Your task to perform on an android device: Search for "logitech g pro" on ebay.com, select the first entry, add it to the cart, then select checkout. Image 0: 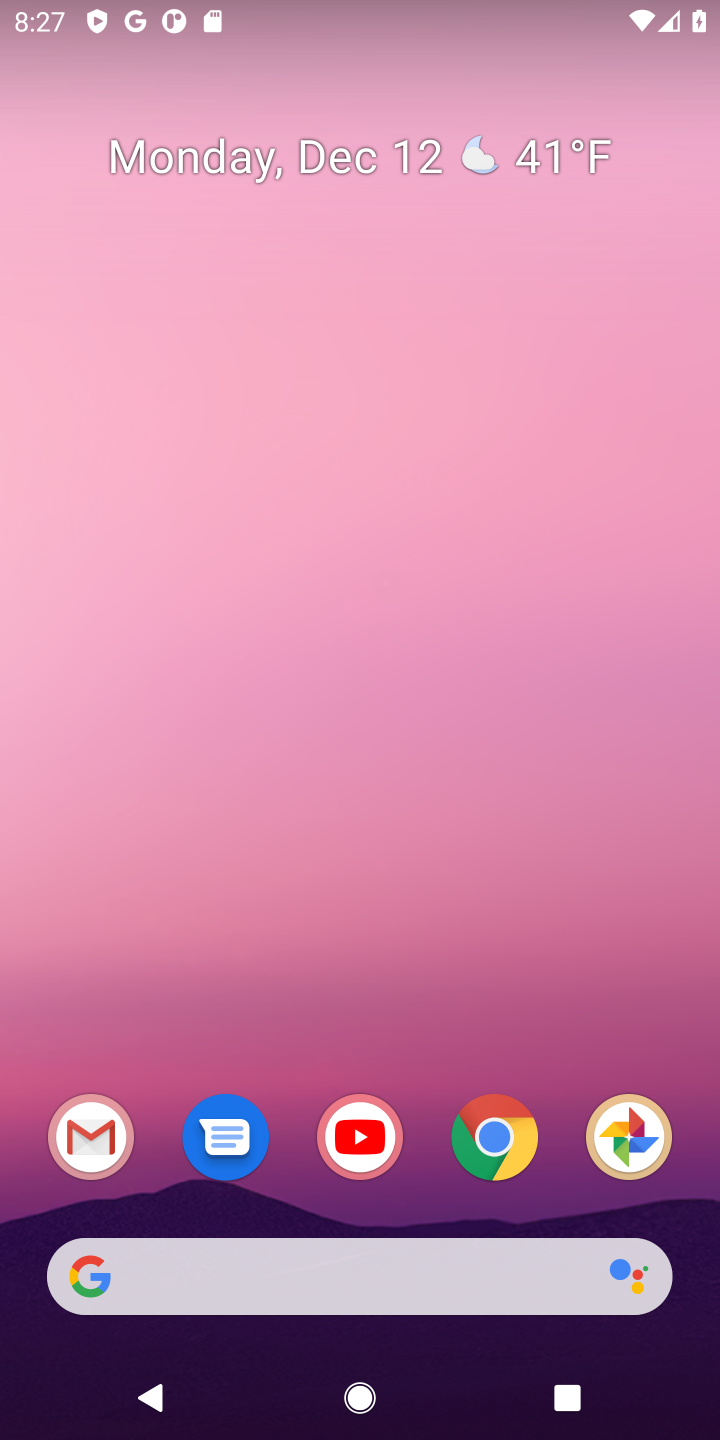
Step 0: click (493, 1135)
Your task to perform on an android device: Search for "logitech g pro" on ebay.com, select the first entry, add it to the cart, then select checkout. Image 1: 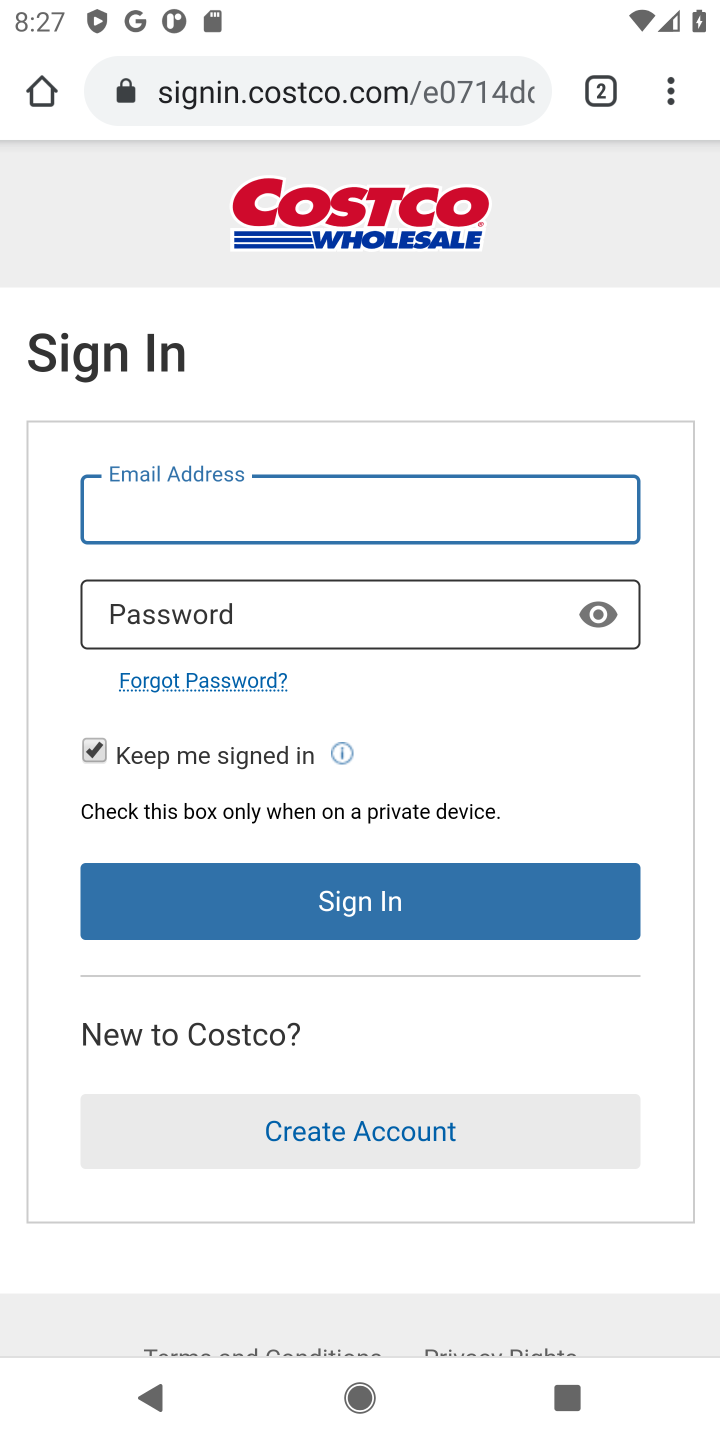
Step 1: click (387, 87)
Your task to perform on an android device: Search for "logitech g pro" on ebay.com, select the first entry, add it to the cart, then select checkout. Image 2: 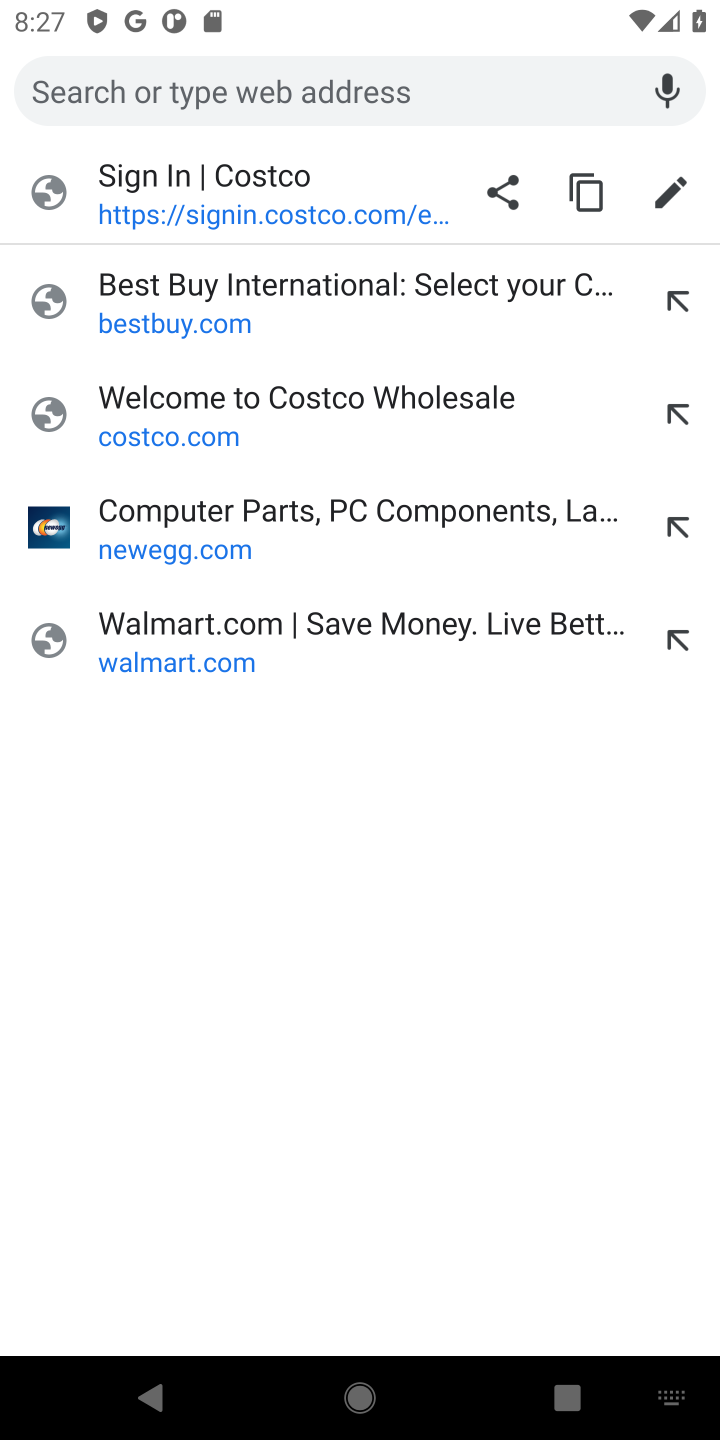
Step 2: type "ebay"
Your task to perform on an android device: Search for "logitech g pro" on ebay.com, select the first entry, add it to the cart, then select checkout. Image 3: 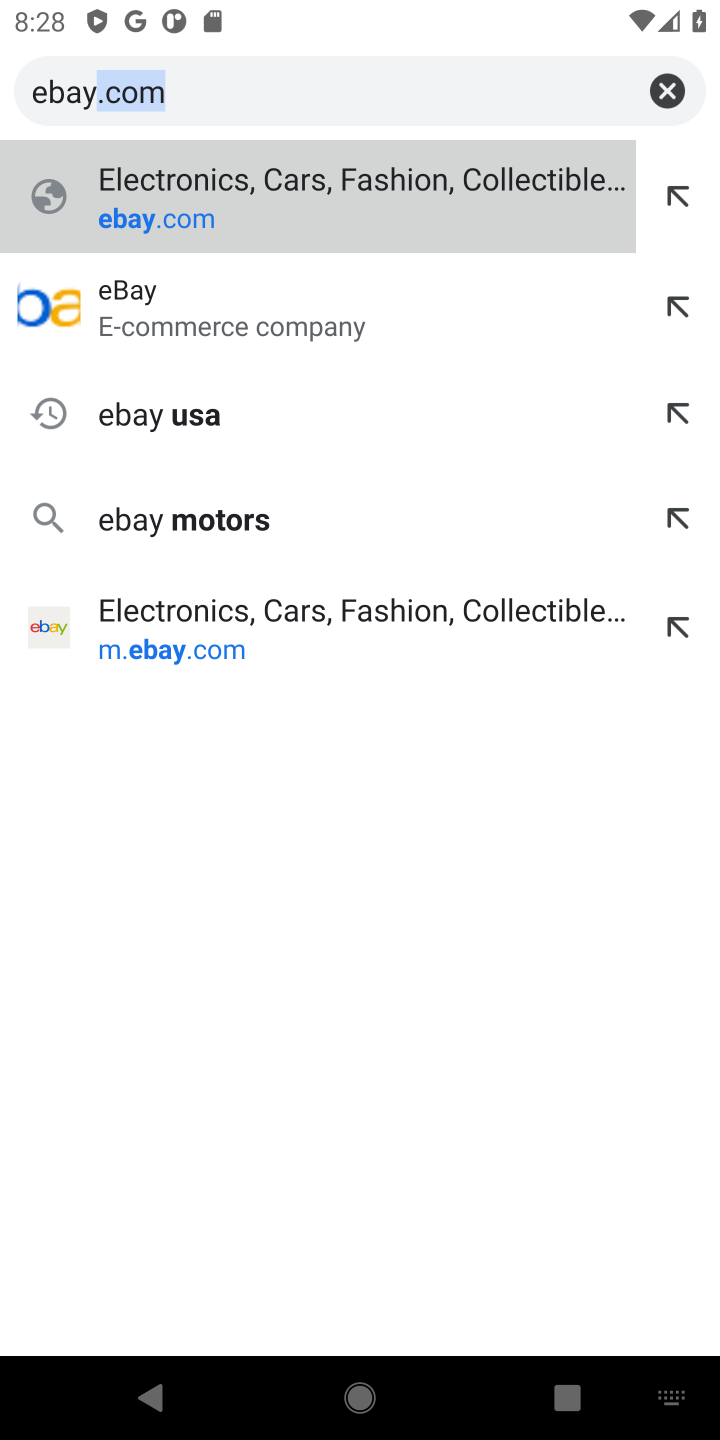
Step 3: click (272, 214)
Your task to perform on an android device: Search for "logitech g pro" on ebay.com, select the first entry, add it to the cart, then select checkout. Image 4: 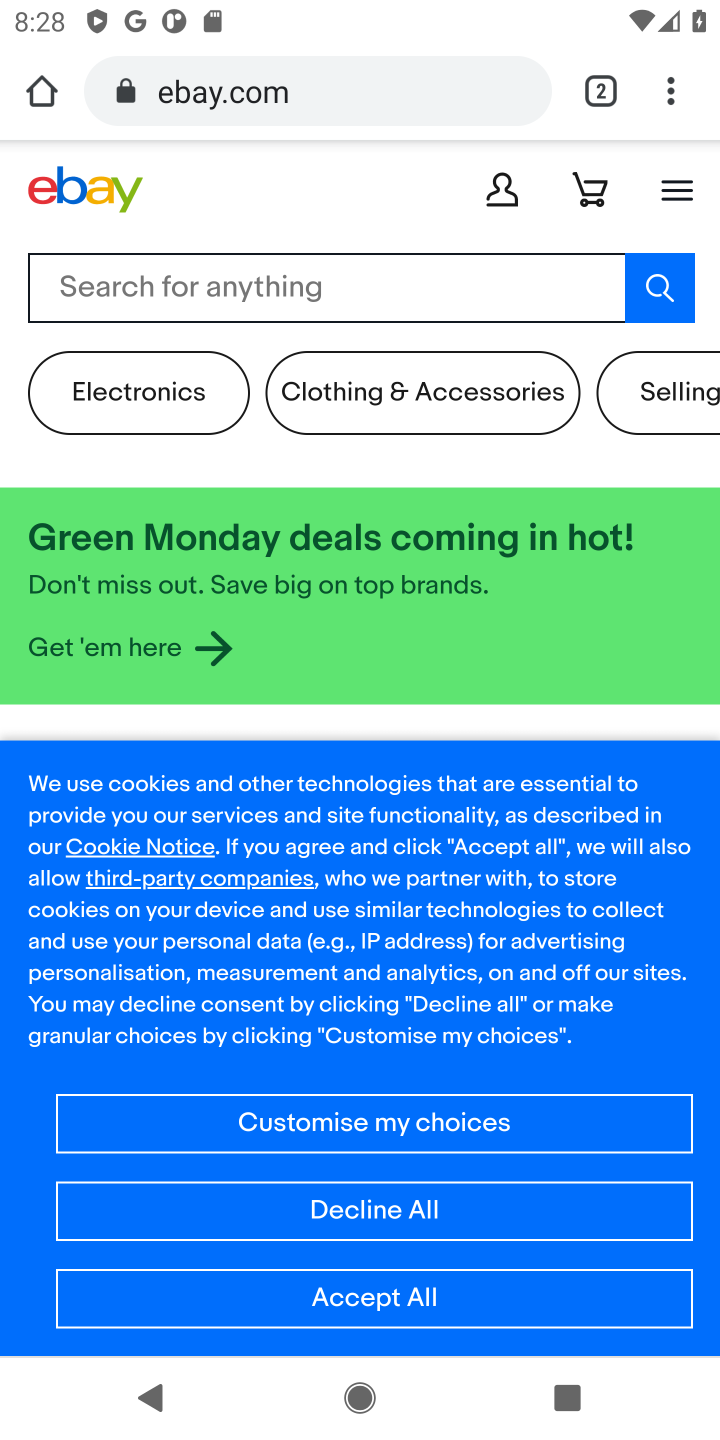
Step 4: click (383, 1301)
Your task to perform on an android device: Search for "logitech g pro" on ebay.com, select the first entry, add it to the cart, then select checkout. Image 5: 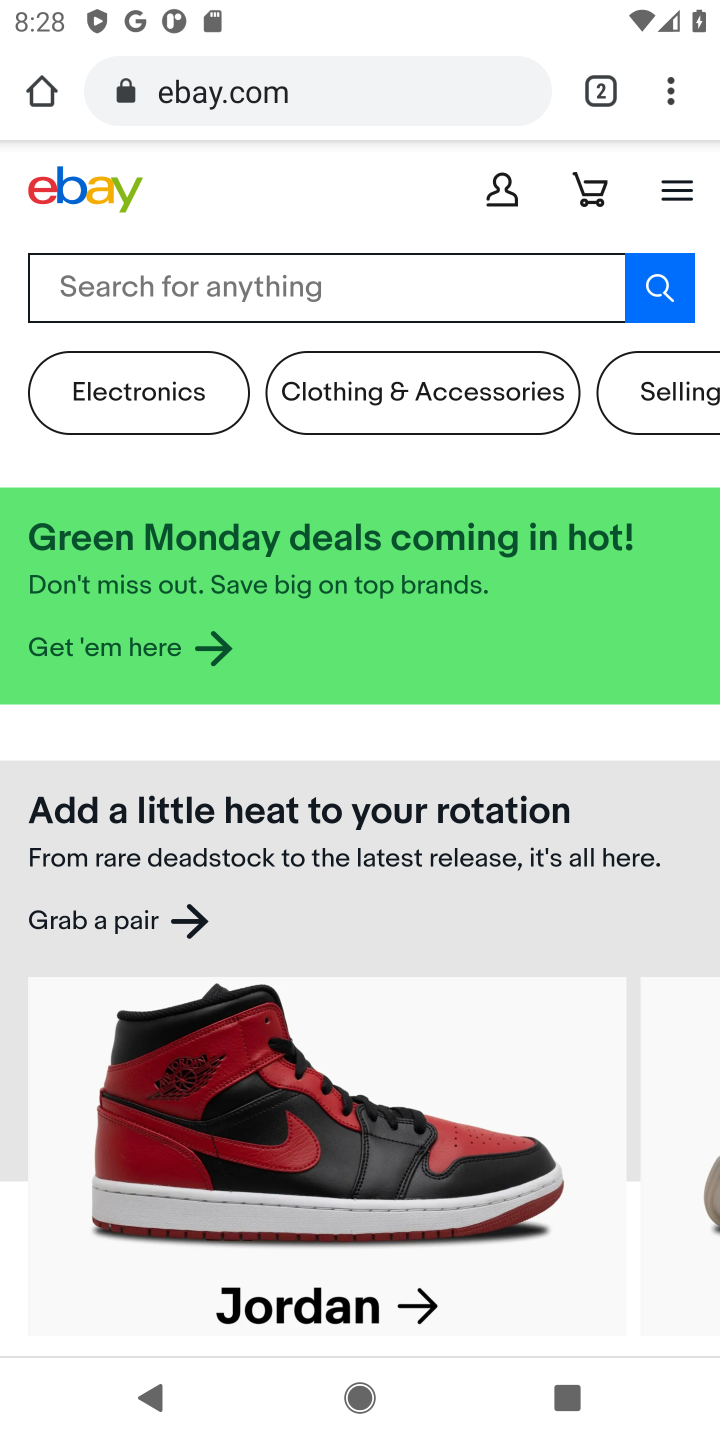
Step 5: click (511, 270)
Your task to perform on an android device: Search for "logitech g pro" on ebay.com, select the first entry, add it to the cart, then select checkout. Image 6: 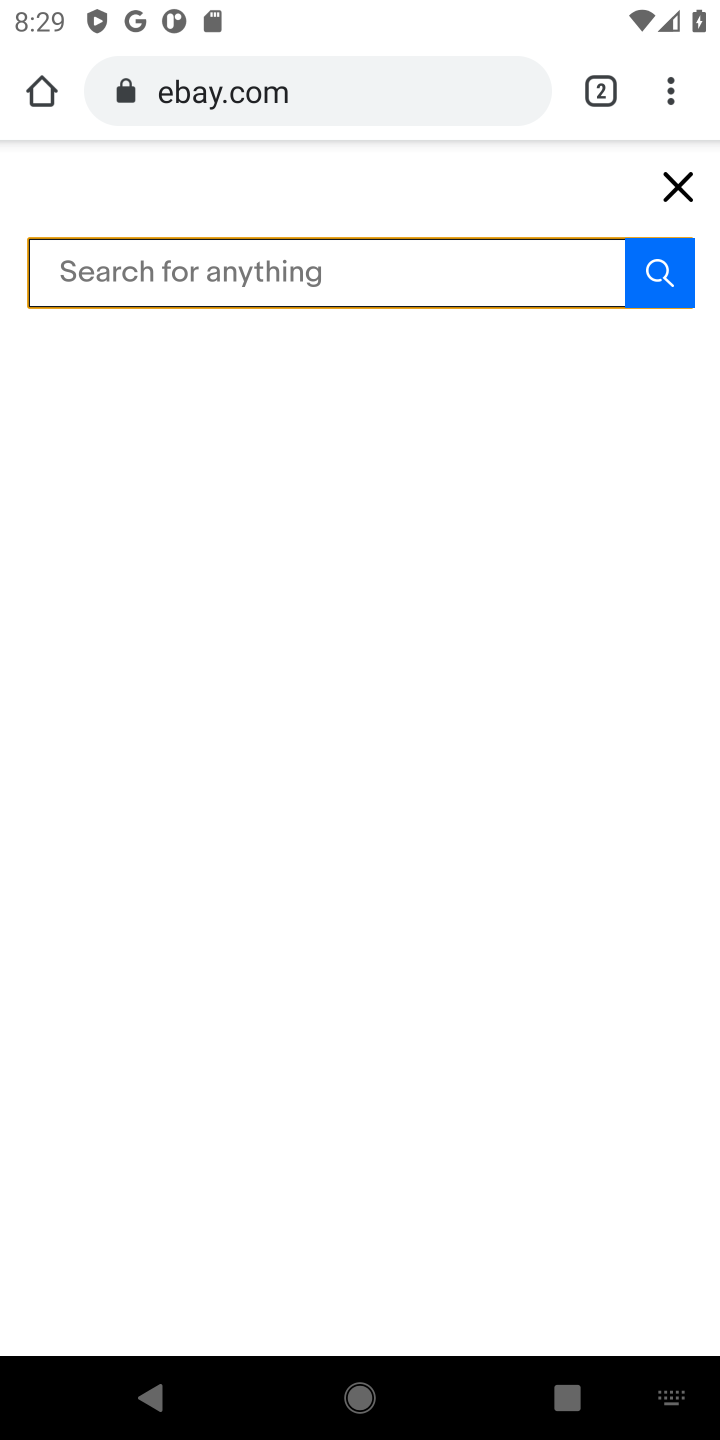
Step 6: type "logitech g pro"
Your task to perform on an android device: Search for "logitech g pro" on ebay.com, select the first entry, add it to the cart, then select checkout. Image 7: 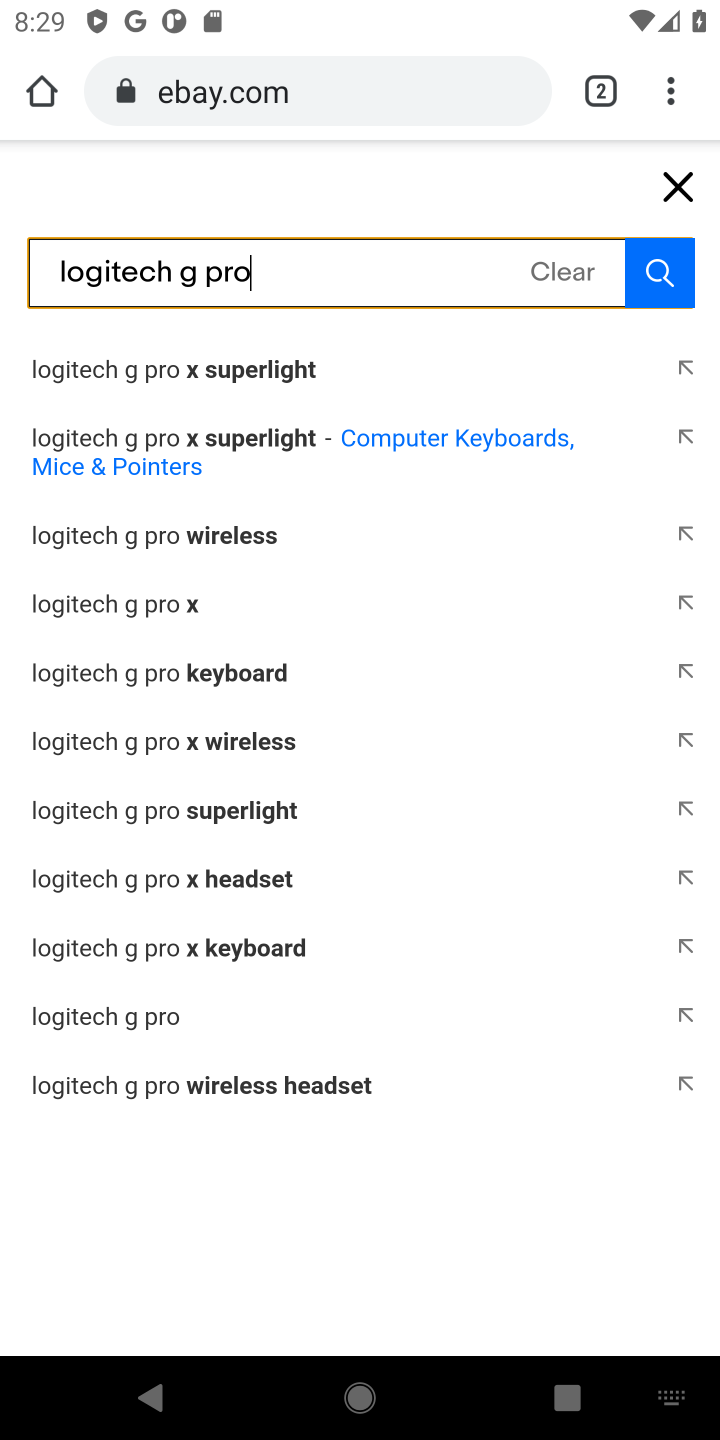
Step 7: click (157, 371)
Your task to perform on an android device: Search for "logitech g pro" on ebay.com, select the first entry, add it to the cart, then select checkout. Image 8: 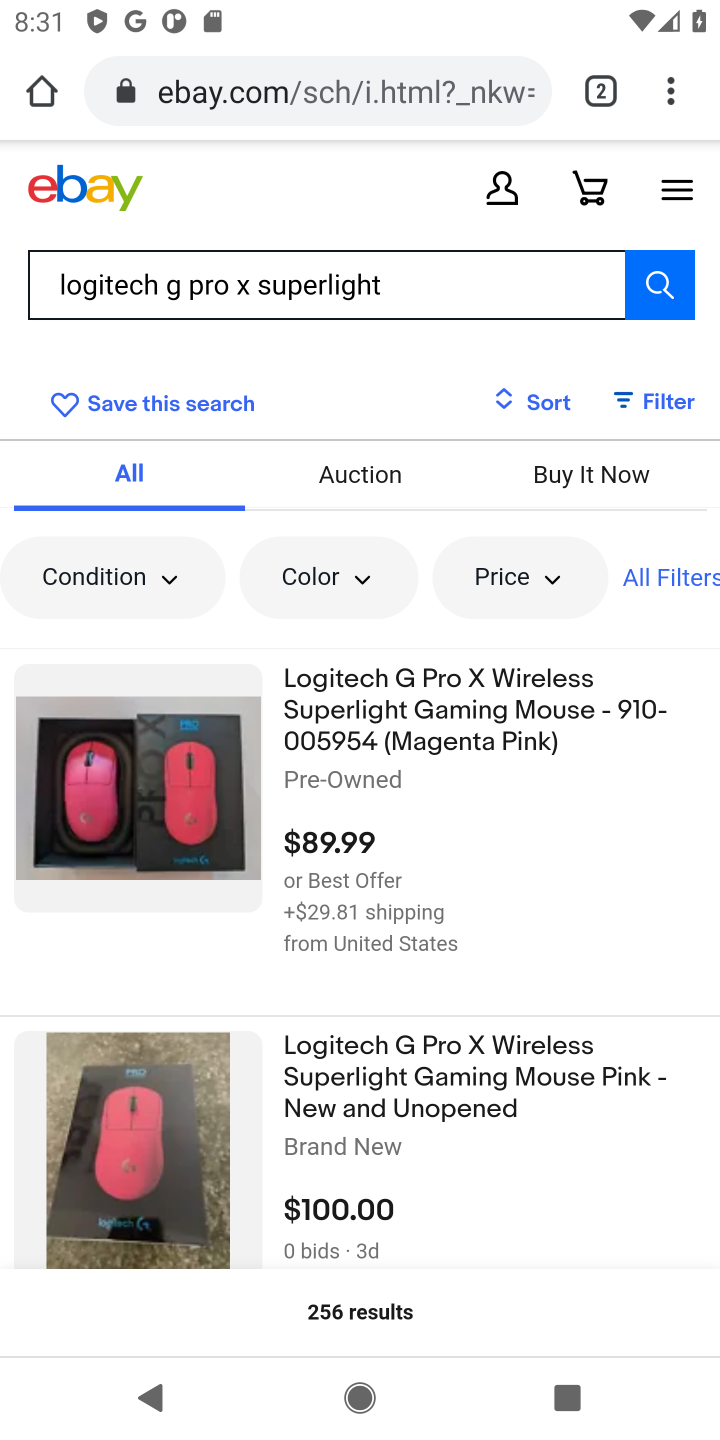
Step 8: click (456, 780)
Your task to perform on an android device: Search for "logitech g pro" on ebay.com, select the first entry, add it to the cart, then select checkout. Image 9: 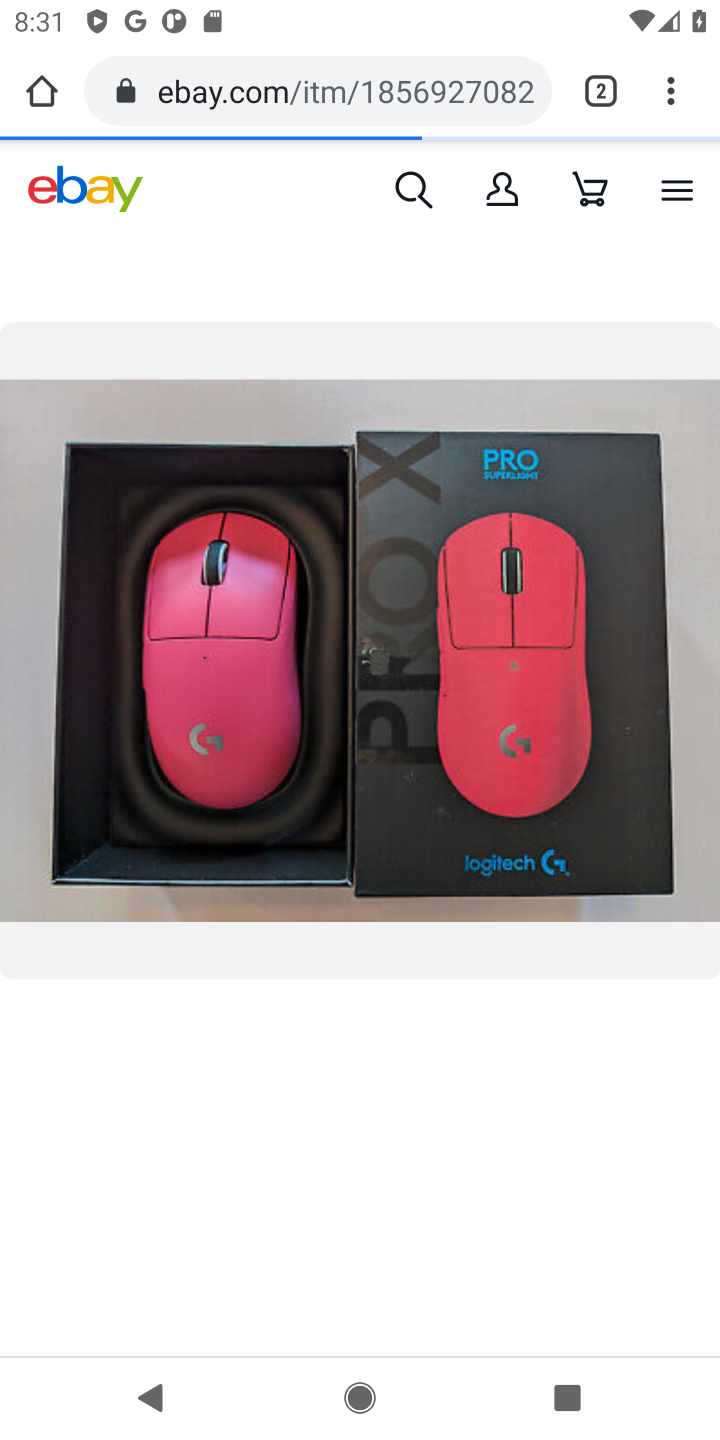
Step 9: task complete